Your task to perform on an android device: set the timer Image 0: 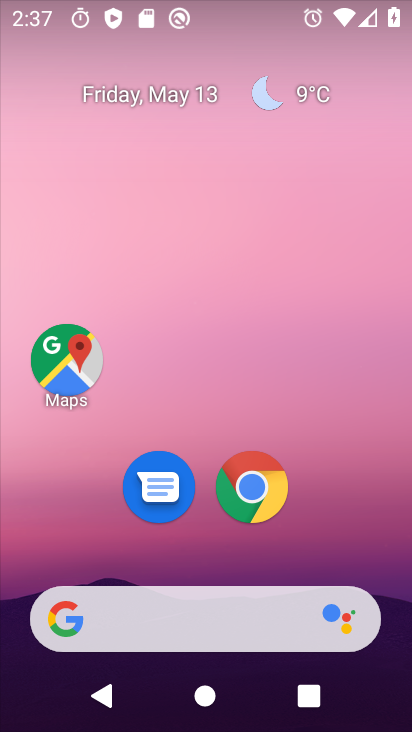
Step 0: drag from (216, 542) to (220, 119)
Your task to perform on an android device: set the timer Image 1: 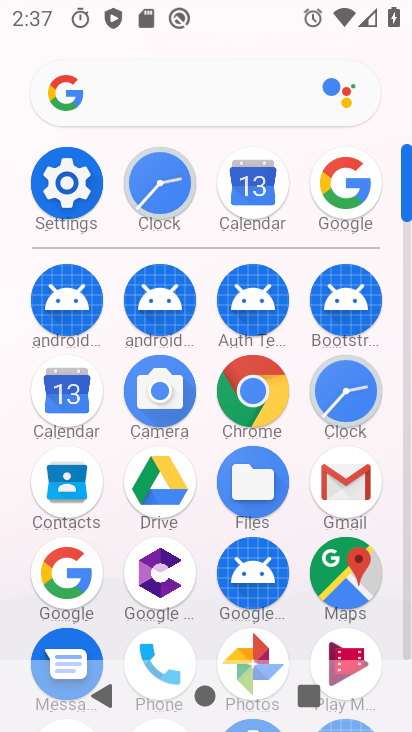
Step 1: click (342, 394)
Your task to perform on an android device: set the timer Image 2: 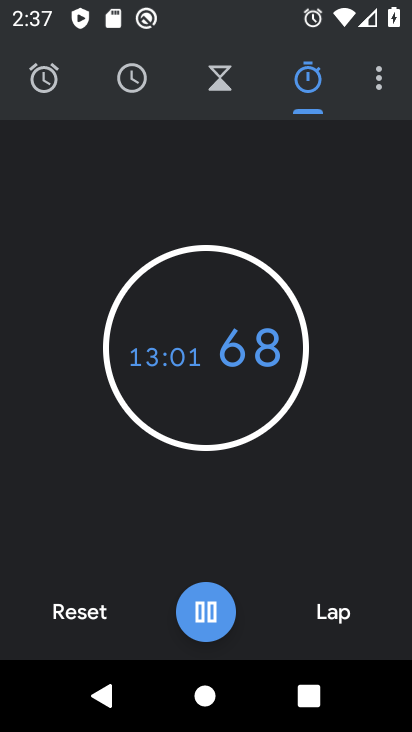
Step 2: click (226, 77)
Your task to perform on an android device: set the timer Image 3: 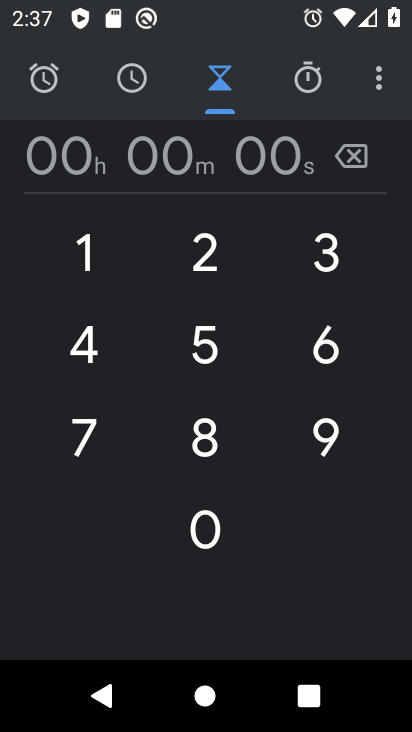
Step 3: click (191, 262)
Your task to perform on an android device: set the timer Image 4: 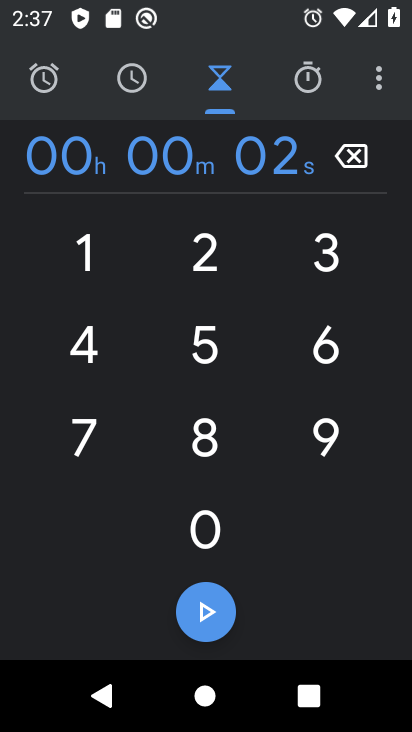
Step 4: click (191, 262)
Your task to perform on an android device: set the timer Image 5: 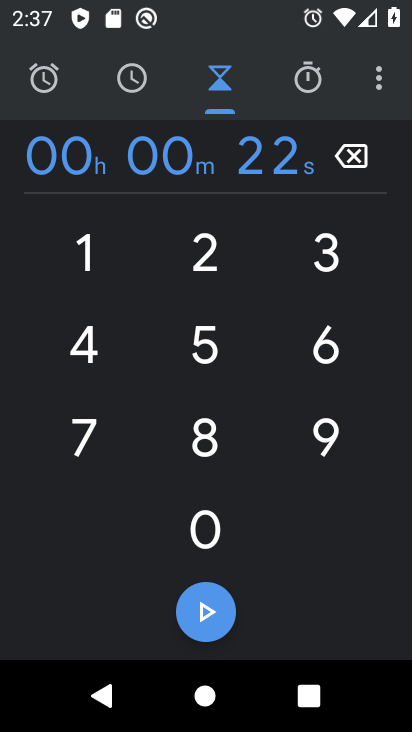
Step 5: task complete